Your task to perform on an android device: Search for Mexican restaurants on Maps Image 0: 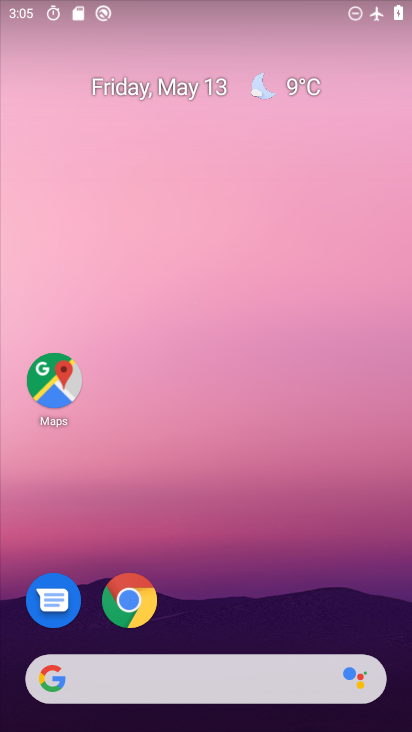
Step 0: drag from (258, 272) to (284, 126)
Your task to perform on an android device: Search for Mexican restaurants on Maps Image 1: 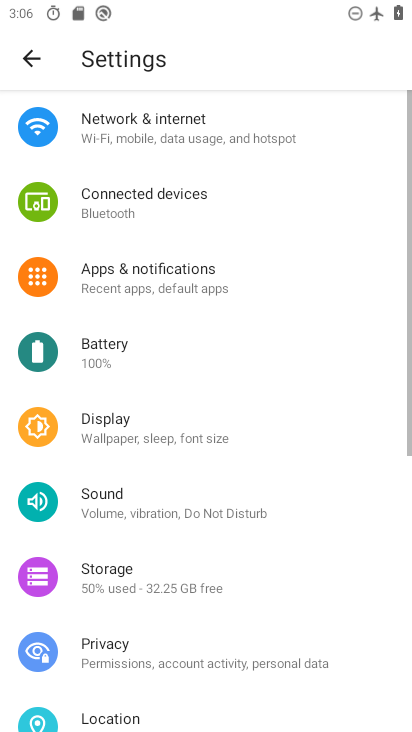
Step 1: press home button
Your task to perform on an android device: Search for Mexican restaurants on Maps Image 2: 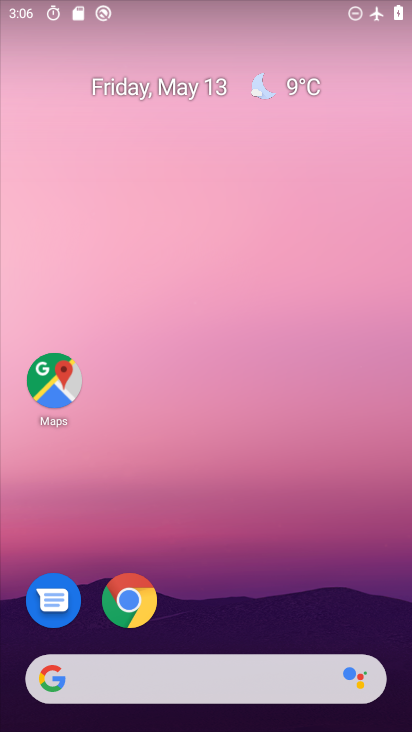
Step 2: click (51, 379)
Your task to perform on an android device: Search for Mexican restaurants on Maps Image 3: 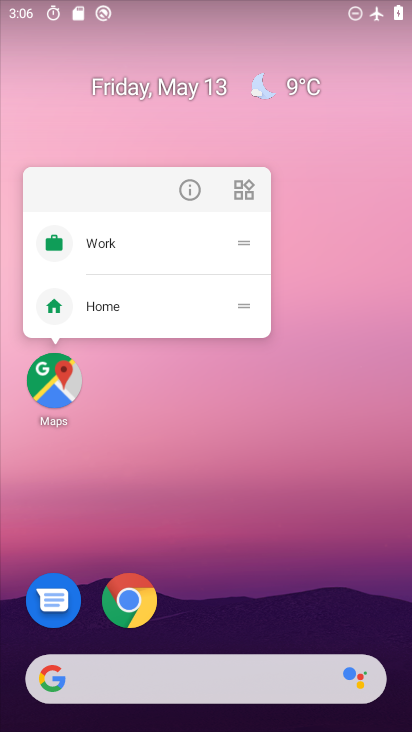
Step 3: click (186, 176)
Your task to perform on an android device: Search for Mexican restaurants on Maps Image 4: 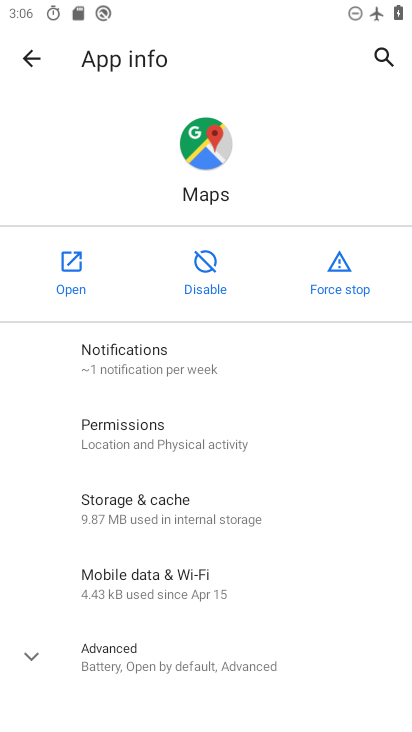
Step 4: click (57, 282)
Your task to perform on an android device: Search for Mexican restaurants on Maps Image 5: 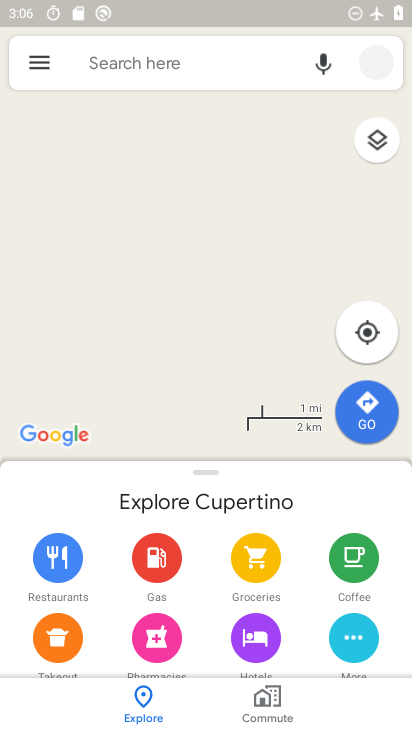
Step 5: click (164, 63)
Your task to perform on an android device: Search for Mexican restaurants on Maps Image 6: 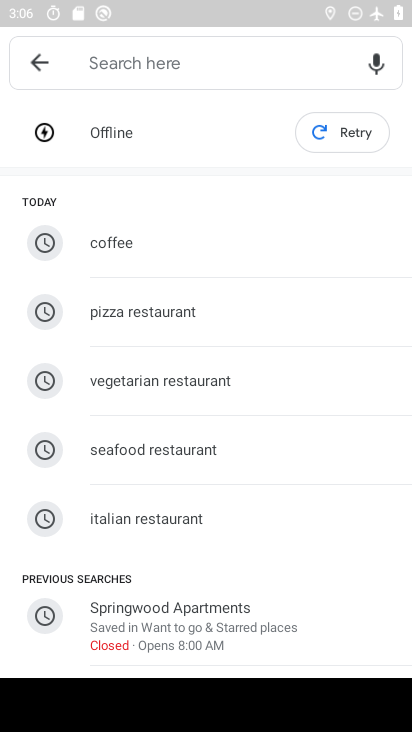
Step 6: drag from (195, 524) to (202, 96)
Your task to perform on an android device: Search for Mexican restaurants on Maps Image 7: 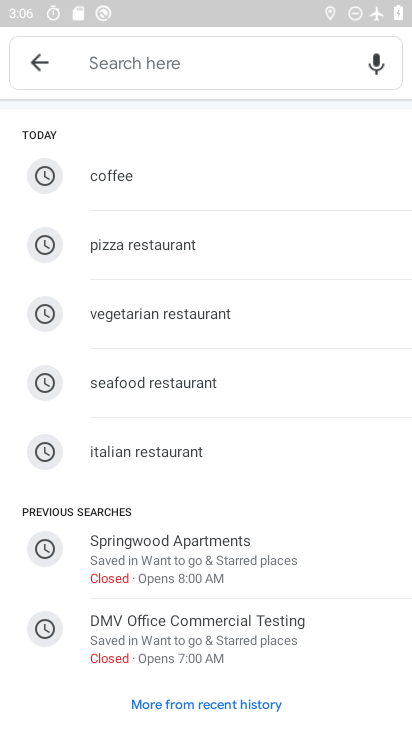
Step 7: click (166, 58)
Your task to perform on an android device: Search for Mexican restaurants on Maps Image 8: 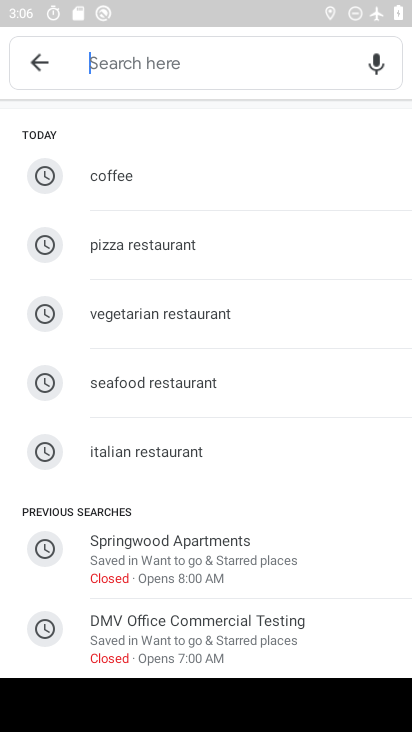
Step 8: type "maxican restaurants"
Your task to perform on an android device: Search for Mexican restaurants on Maps Image 9: 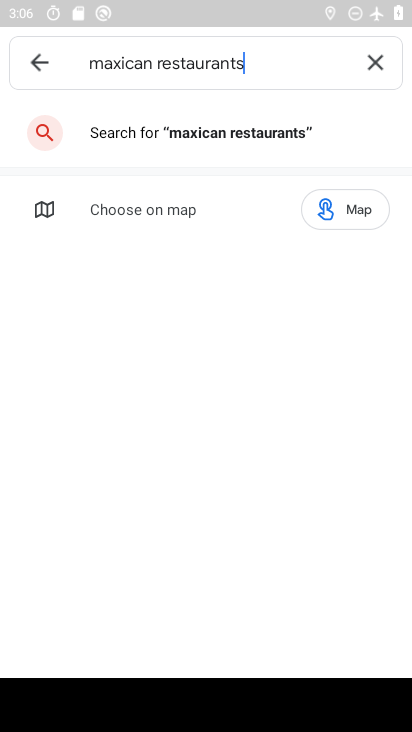
Step 9: click (160, 123)
Your task to perform on an android device: Search for Mexican restaurants on Maps Image 10: 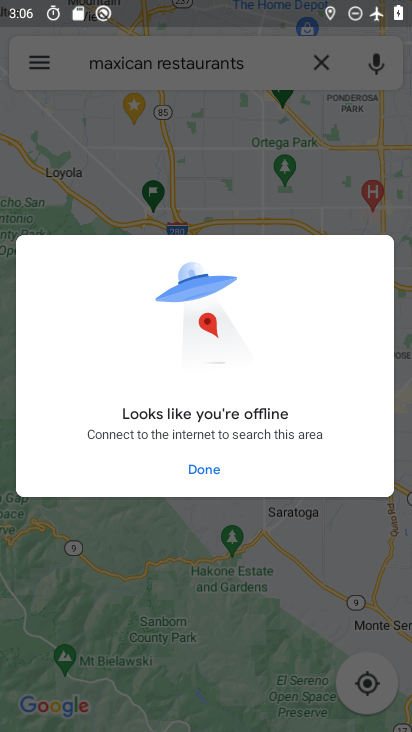
Step 10: click (223, 474)
Your task to perform on an android device: Search for Mexican restaurants on Maps Image 11: 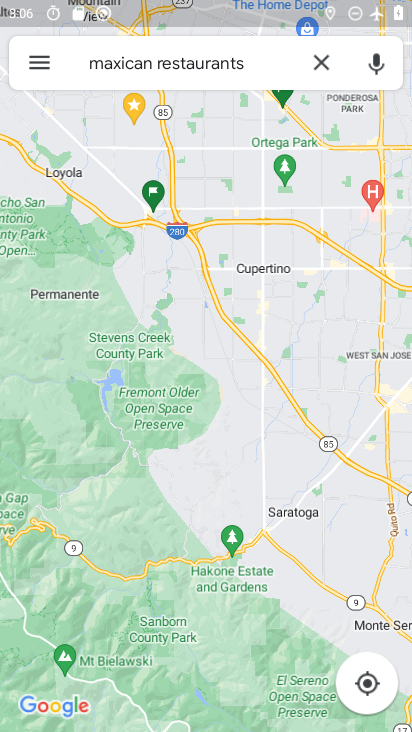
Step 11: task complete